Your task to perform on an android device: What is the news today? Image 0: 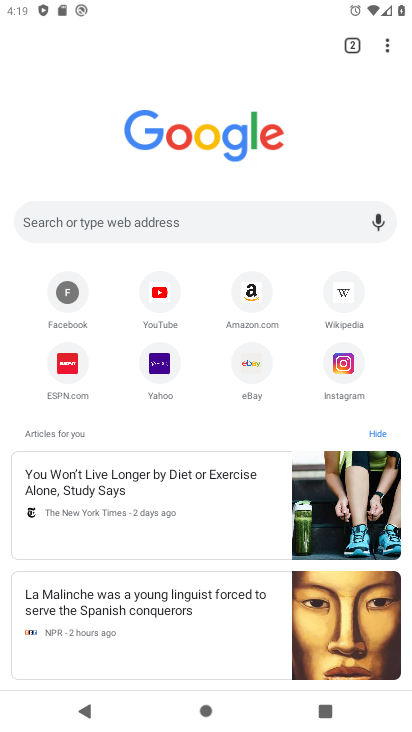
Step 0: press home button
Your task to perform on an android device: What is the news today? Image 1: 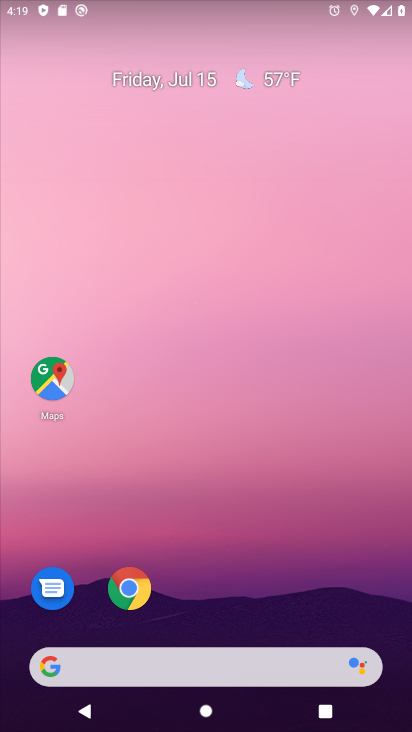
Step 1: drag from (196, 655) to (255, 157)
Your task to perform on an android device: What is the news today? Image 2: 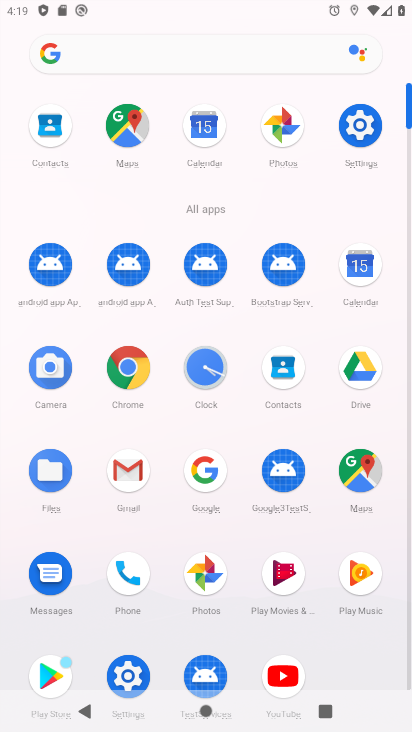
Step 2: click (203, 469)
Your task to perform on an android device: What is the news today? Image 3: 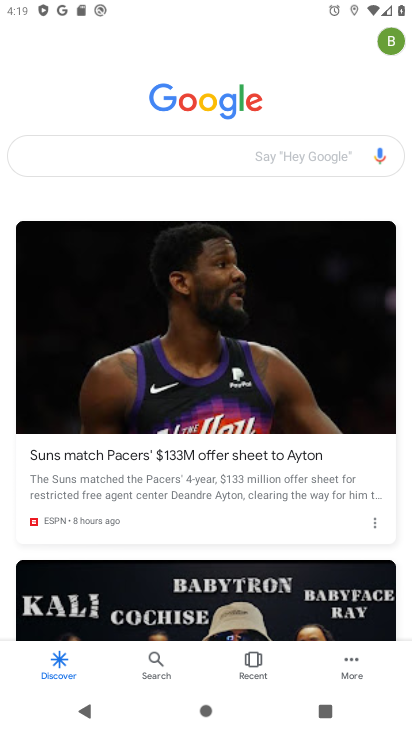
Step 3: click (191, 159)
Your task to perform on an android device: What is the news today? Image 4: 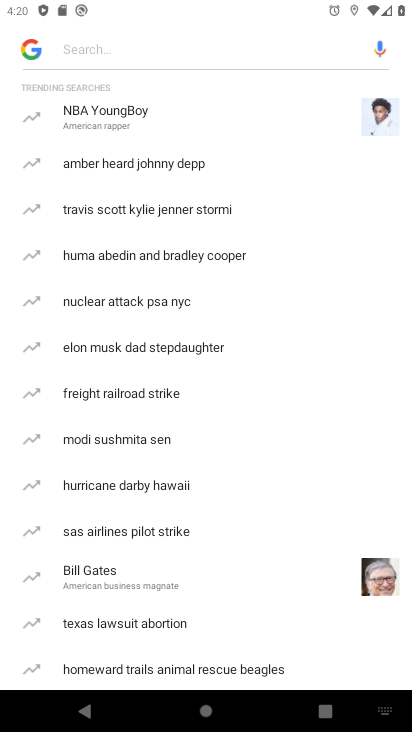
Step 4: type "news today"
Your task to perform on an android device: What is the news today? Image 5: 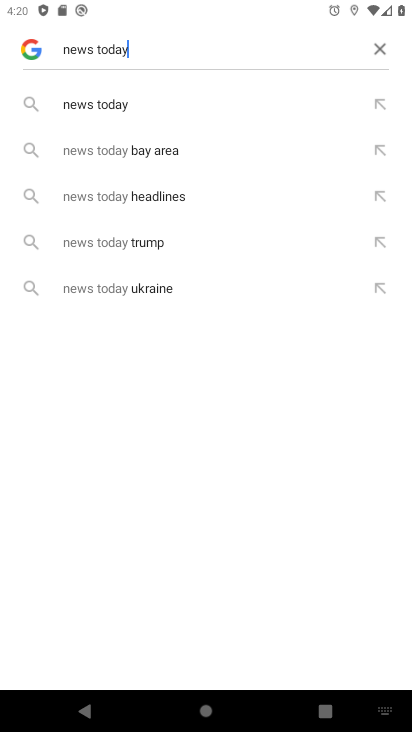
Step 5: click (112, 100)
Your task to perform on an android device: What is the news today? Image 6: 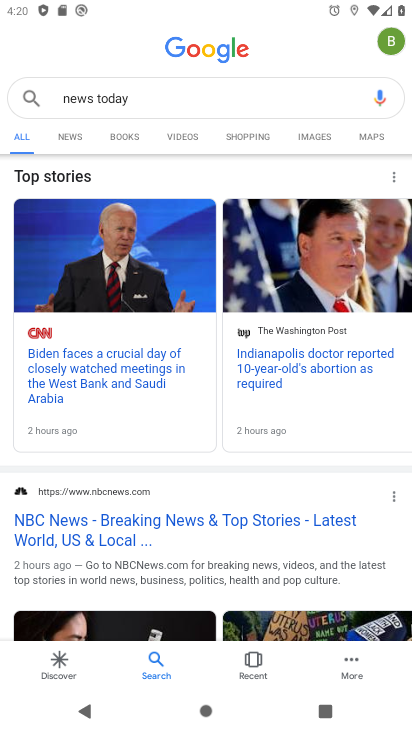
Step 6: click (148, 371)
Your task to perform on an android device: What is the news today? Image 7: 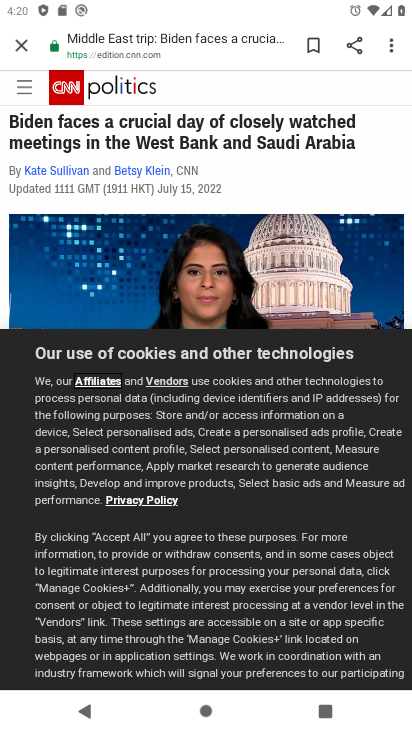
Step 7: task complete